Your task to perform on an android device: See recent photos Image 0: 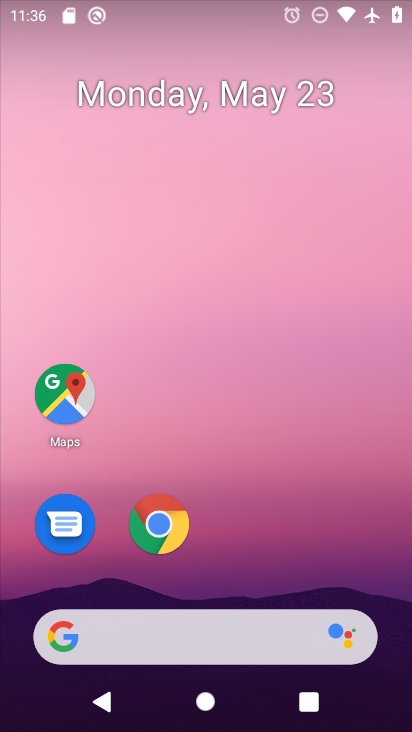
Step 0: drag from (272, 577) to (275, 314)
Your task to perform on an android device: See recent photos Image 1: 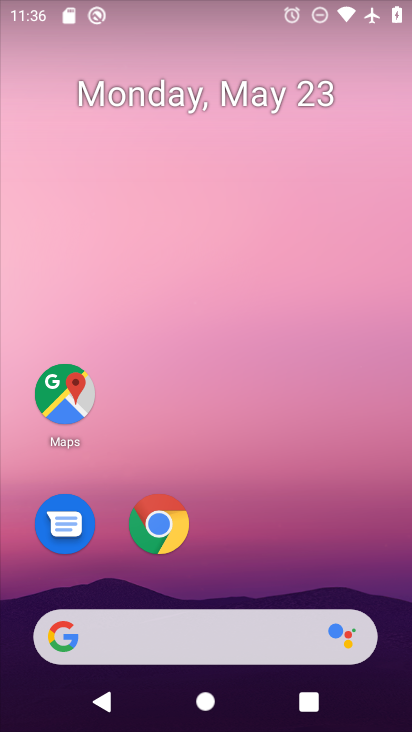
Step 1: drag from (236, 578) to (260, 157)
Your task to perform on an android device: See recent photos Image 2: 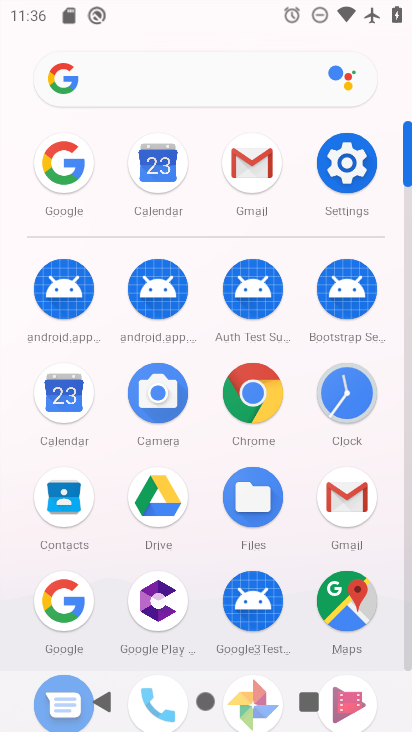
Step 2: drag from (211, 632) to (254, 415)
Your task to perform on an android device: See recent photos Image 3: 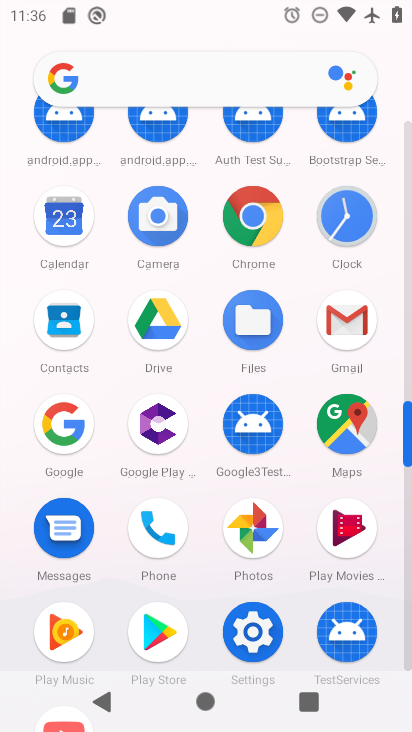
Step 3: click (262, 553)
Your task to perform on an android device: See recent photos Image 4: 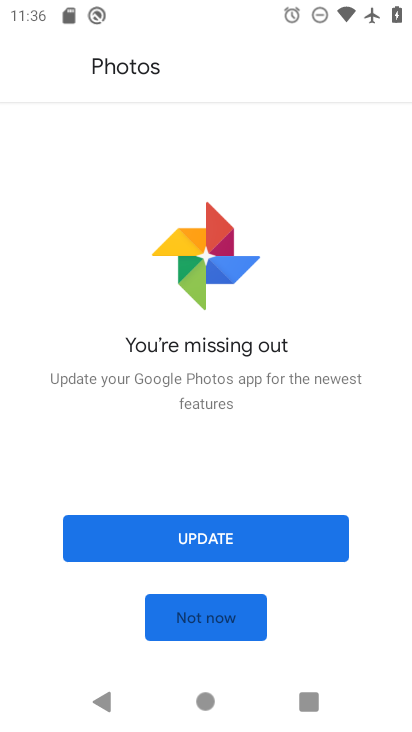
Step 4: click (234, 624)
Your task to perform on an android device: See recent photos Image 5: 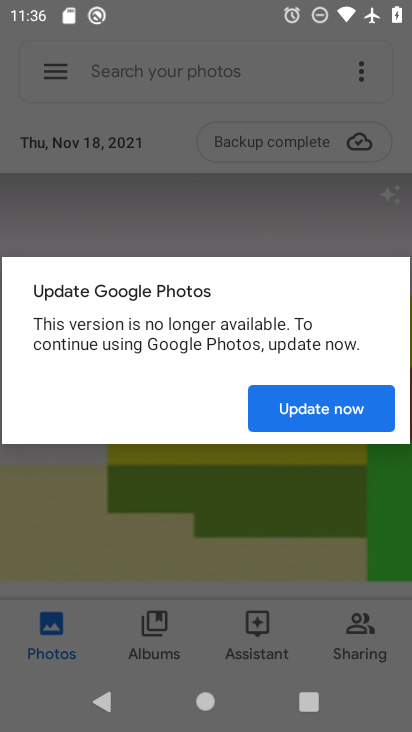
Step 5: click (278, 404)
Your task to perform on an android device: See recent photos Image 6: 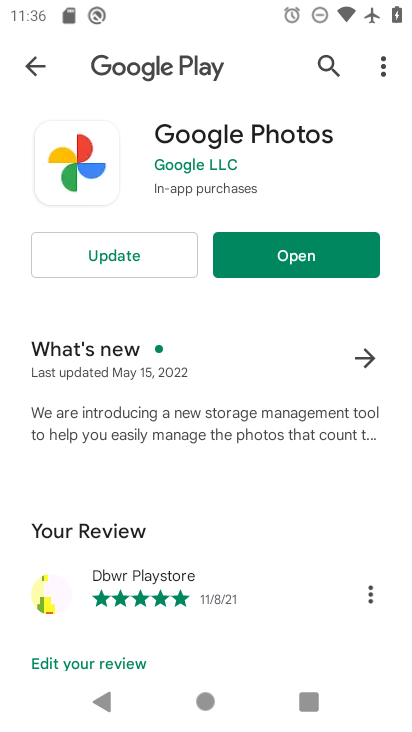
Step 6: click (266, 266)
Your task to perform on an android device: See recent photos Image 7: 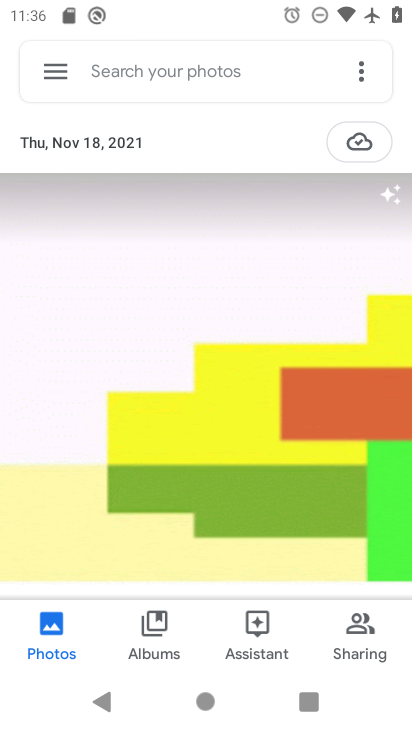
Step 7: click (160, 609)
Your task to perform on an android device: See recent photos Image 8: 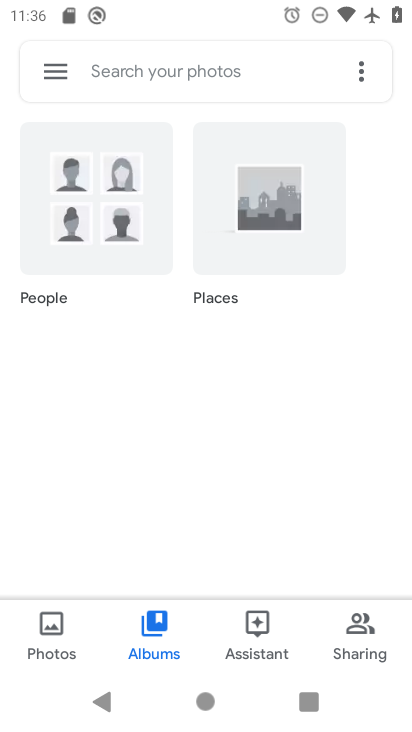
Step 8: click (48, 634)
Your task to perform on an android device: See recent photos Image 9: 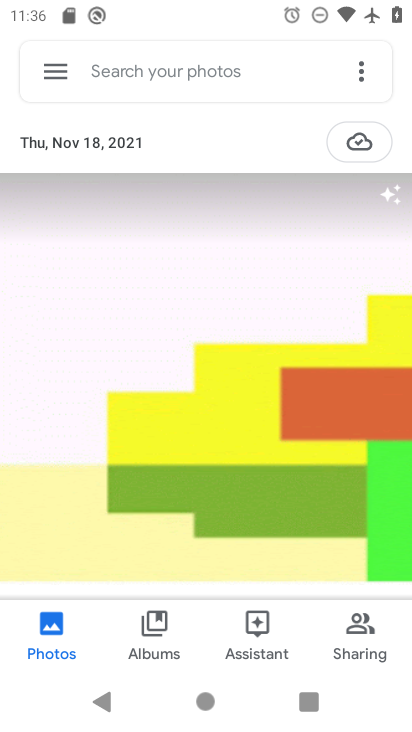
Step 9: task complete